Your task to perform on an android device: Clear the shopping cart on ebay. Image 0: 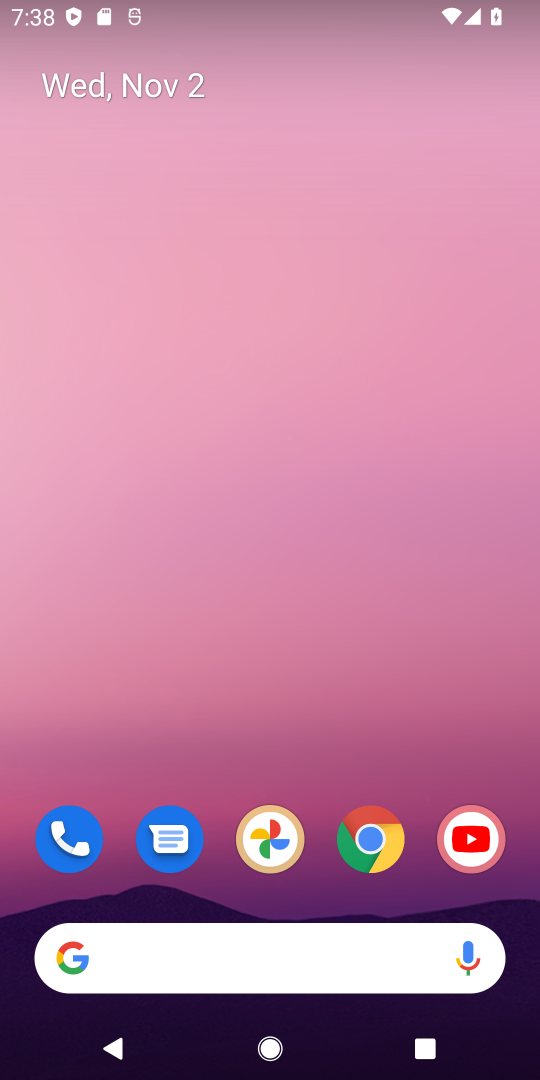
Step 0: click (370, 845)
Your task to perform on an android device: Clear the shopping cart on ebay. Image 1: 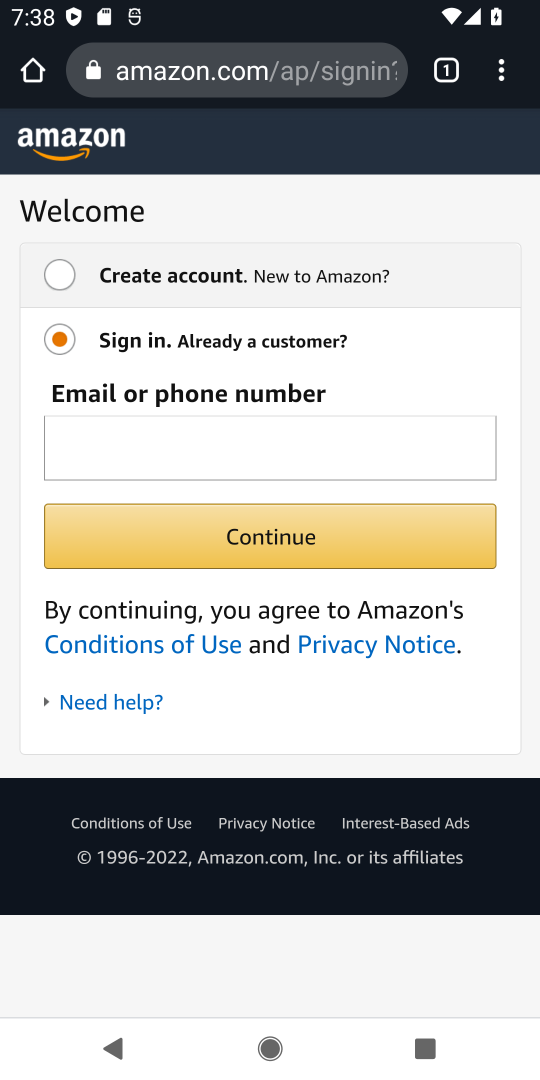
Step 1: click (277, 66)
Your task to perform on an android device: Clear the shopping cart on ebay. Image 2: 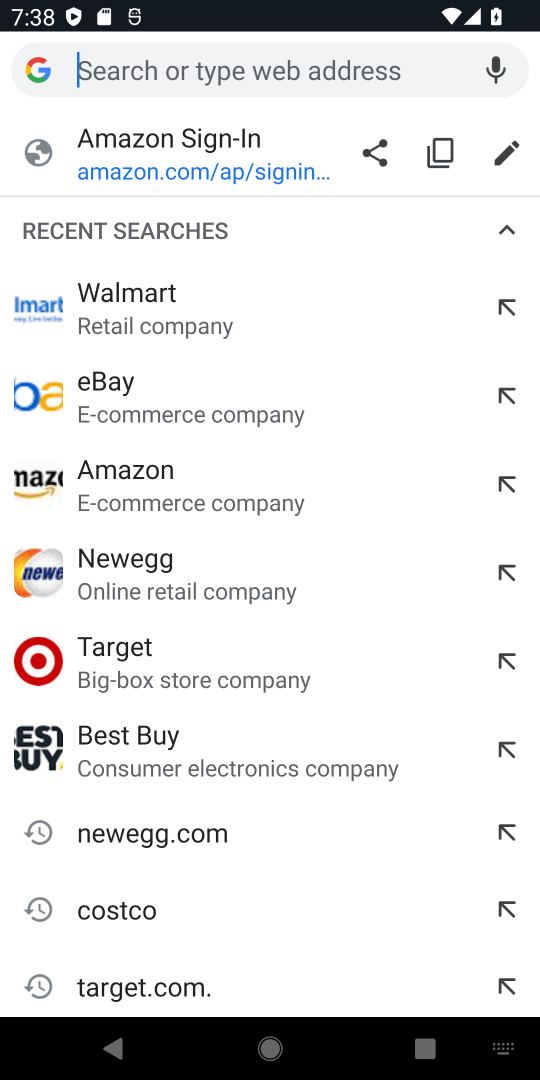
Step 2: type "ebay"
Your task to perform on an android device: Clear the shopping cart on ebay. Image 3: 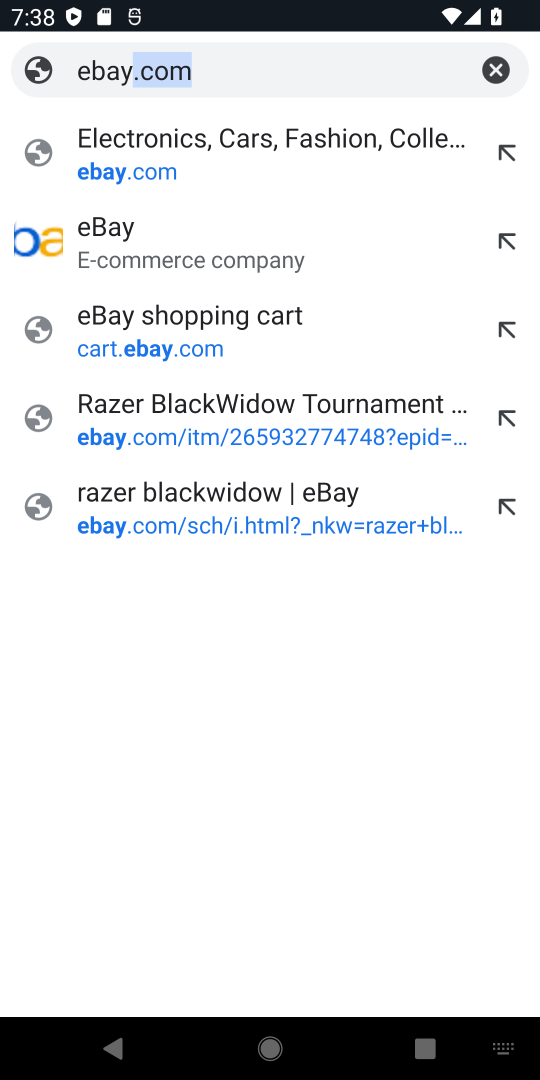
Step 3: click (196, 232)
Your task to perform on an android device: Clear the shopping cart on ebay. Image 4: 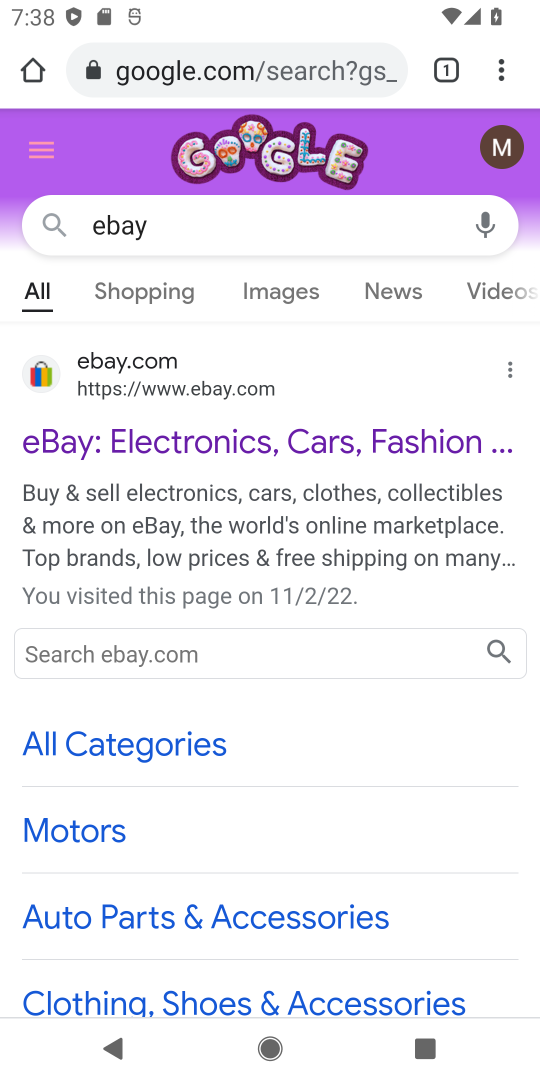
Step 4: click (229, 369)
Your task to perform on an android device: Clear the shopping cart on ebay. Image 5: 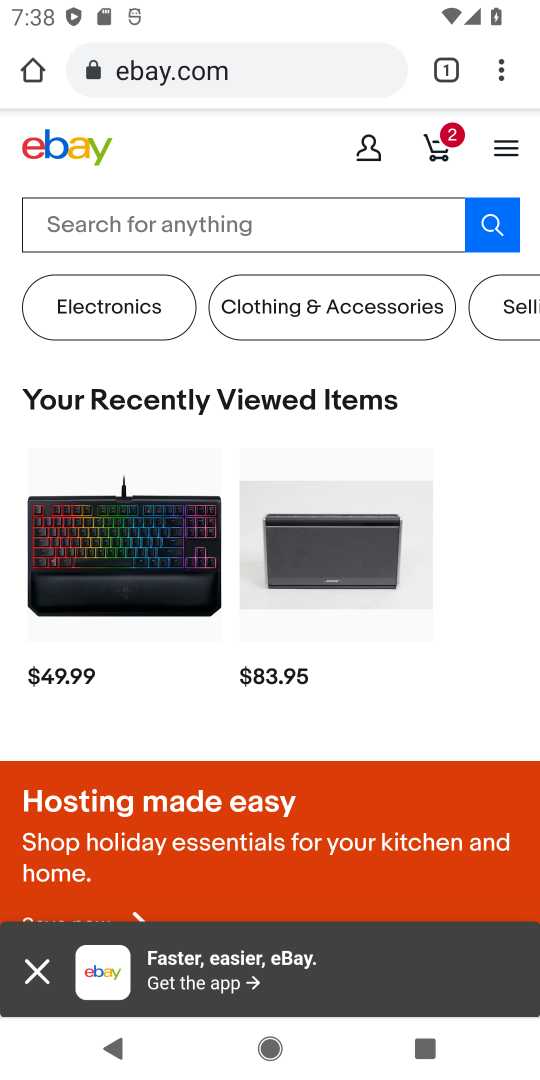
Step 5: click (444, 138)
Your task to perform on an android device: Clear the shopping cart on ebay. Image 6: 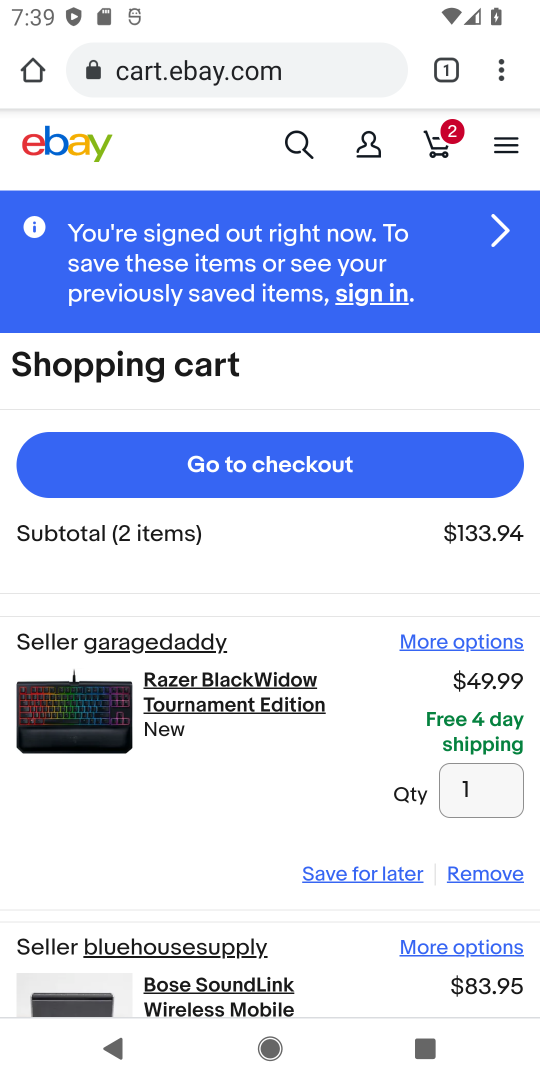
Step 6: click (475, 875)
Your task to perform on an android device: Clear the shopping cart on ebay. Image 7: 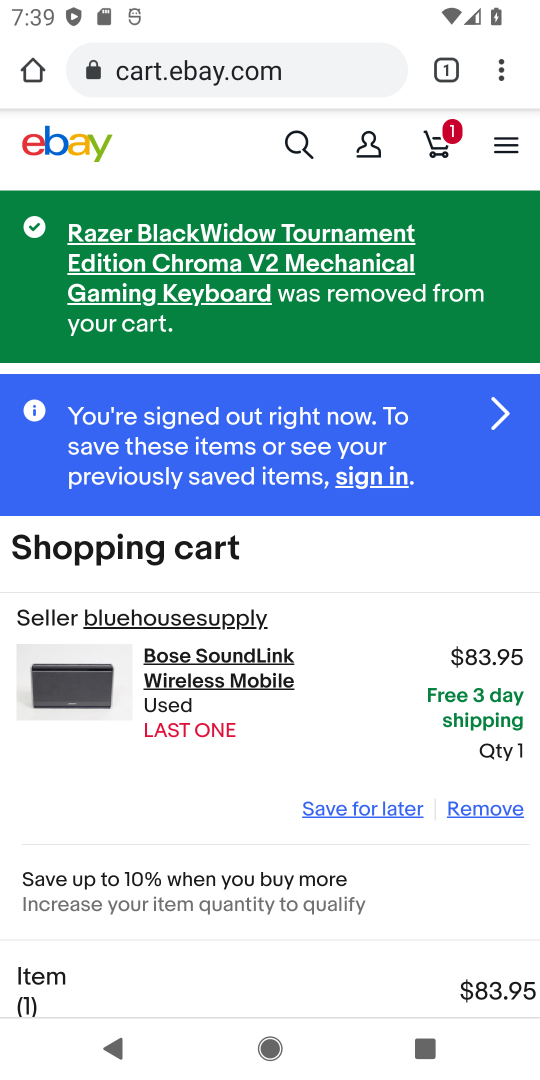
Step 7: click (487, 810)
Your task to perform on an android device: Clear the shopping cart on ebay. Image 8: 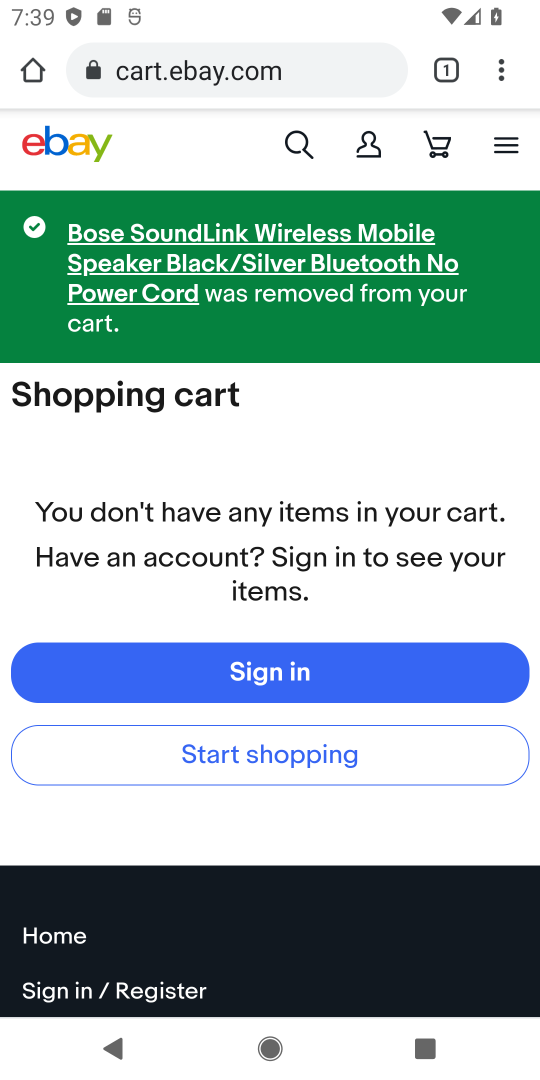
Step 8: task complete